Your task to perform on an android device: Open the calendar and show me this week's events Image 0: 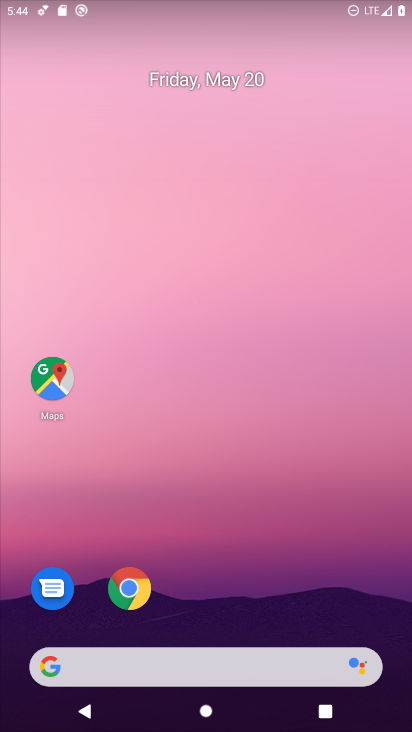
Step 0: drag from (162, 597) to (196, 64)
Your task to perform on an android device: Open the calendar and show me this week's events Image 1: 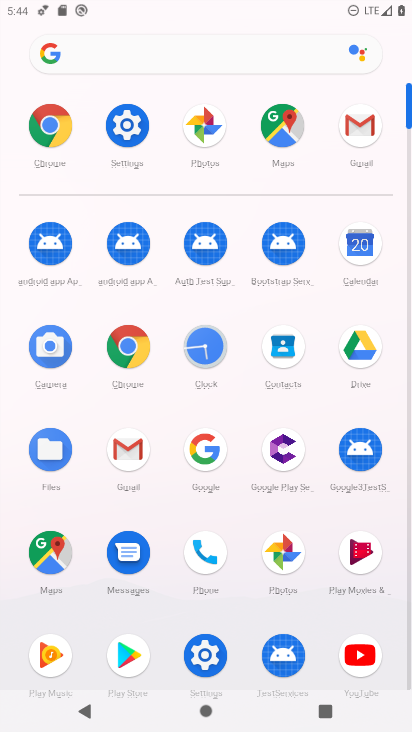
Step 1: click (356, 258)
Your task to perform on an android device: Open the calendar and show me this week's events Image 2: 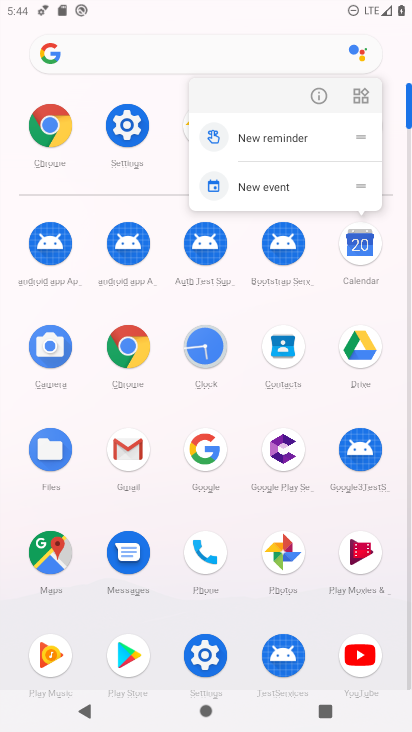
Step 2: click (359, 243)
Your task to perform on an android device: Open the calendar and show me this week's events Image 3: 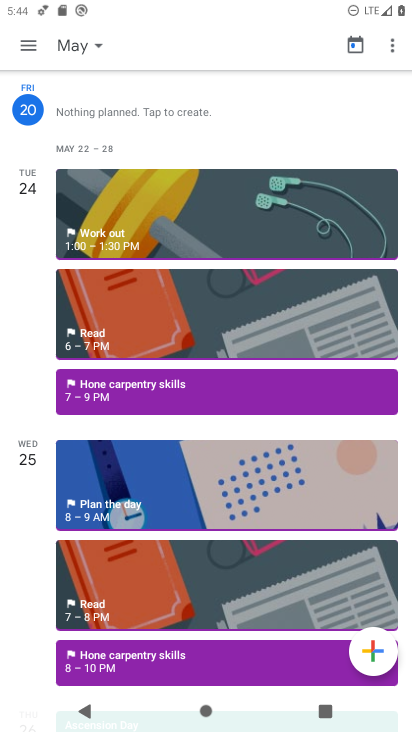
Step 3: task complete